Your task to perform on an android device: empty trash in google photos Image 0: 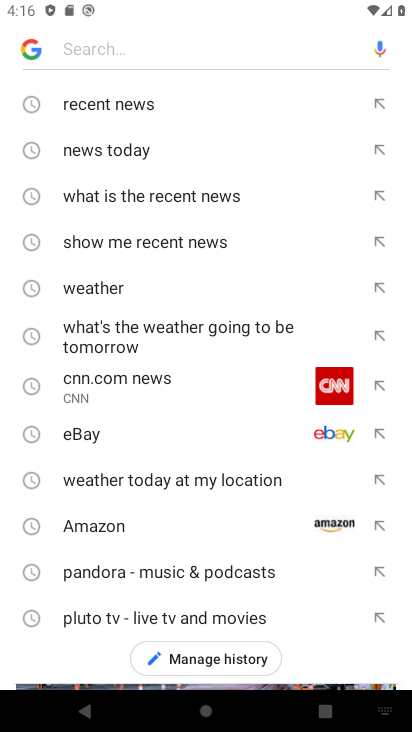
Step 0: press back button
Your task to perform on an android device: empty trash in google photos Image 1: 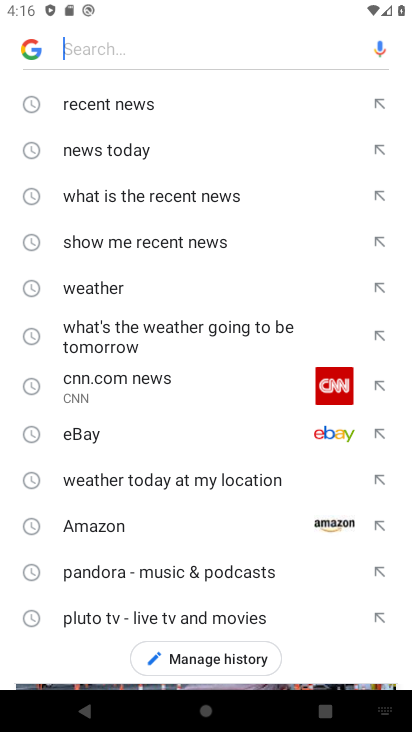
Step 1: press back button
Your task to perform on an android device: empty trash in google photos Image 2: 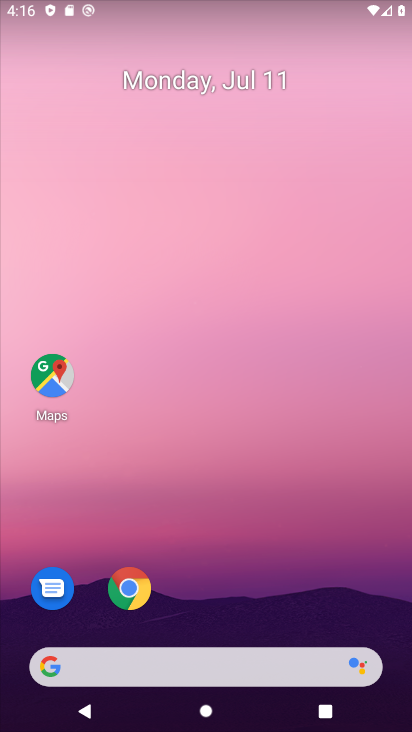
Step 2: drag from (281, 705) to (199, 175)
Your task to perform on an android device: empty trash in google photos Image 3: 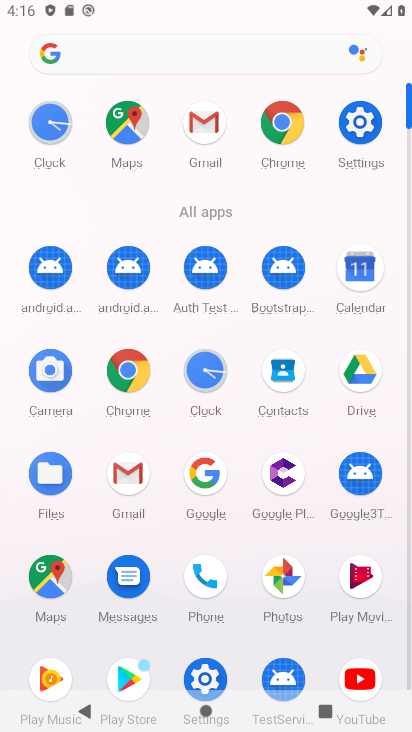
Step 3: click (282, 578)
Your task to perform on an android device: empty trash in google photos Image 4: 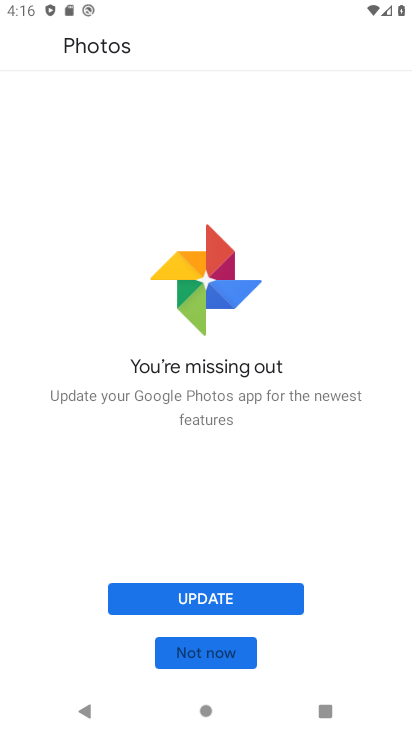
Step 4: click (216, 658)
Your task to perform on an android device: empty trash in google photos Image 5: 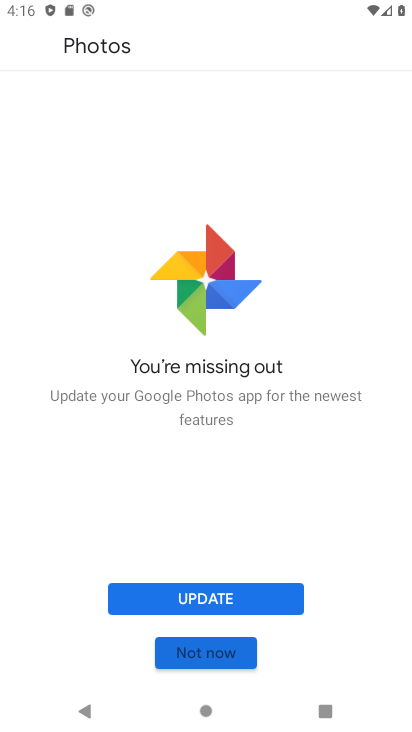
Step 5: click (216, 658)
Your task to perform on an android device: empty trash in google photos Image 6: 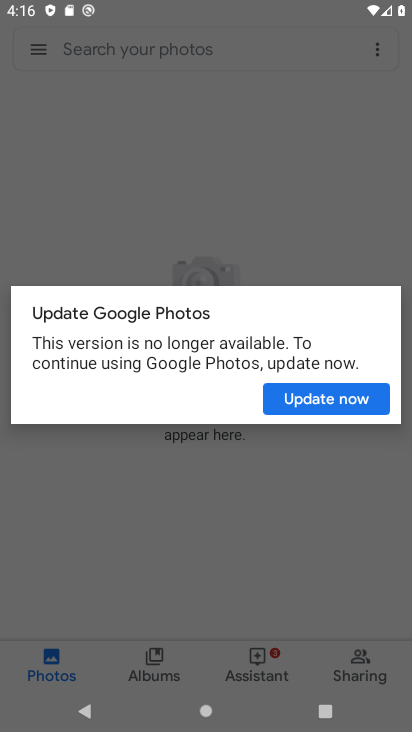
Step 6: click (269, 141)
Your task to perform on an android device: empty trash in google photos Image 7: 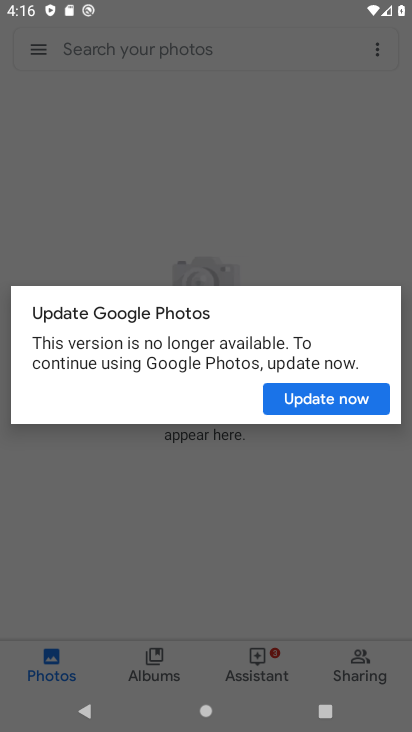
Step 7: press back button
Your task to perform on an android device: empty trash in google photos Image 8: 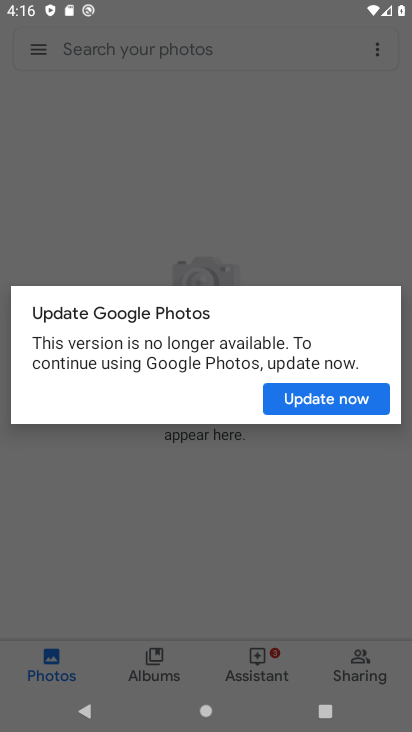
Step 8: click (285, 226)
Your task to perform on an android device: empty trash in google photos Image 9: 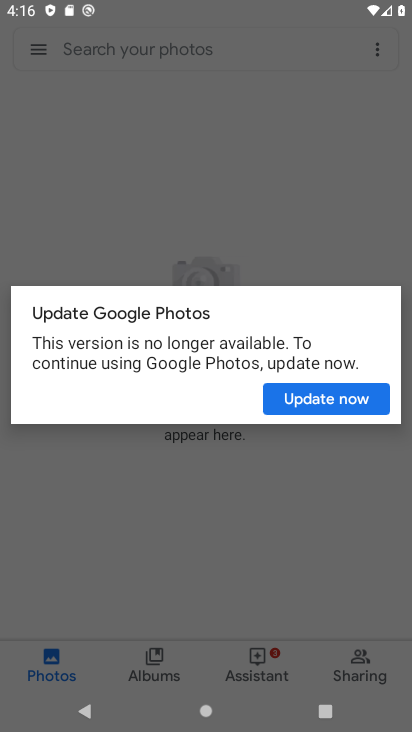
Step 9: click (285, 226)
Your task to perform on an android device: empty trash in google photos Image 10: 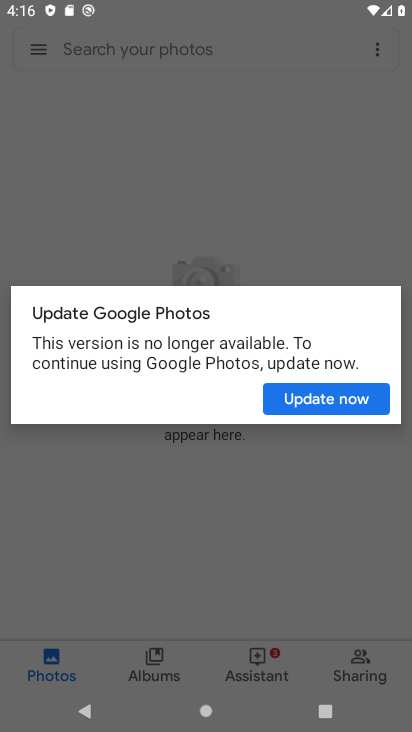
Step 10: press home button
Your task to perform on an android device: empty trash in google photos Image 11: 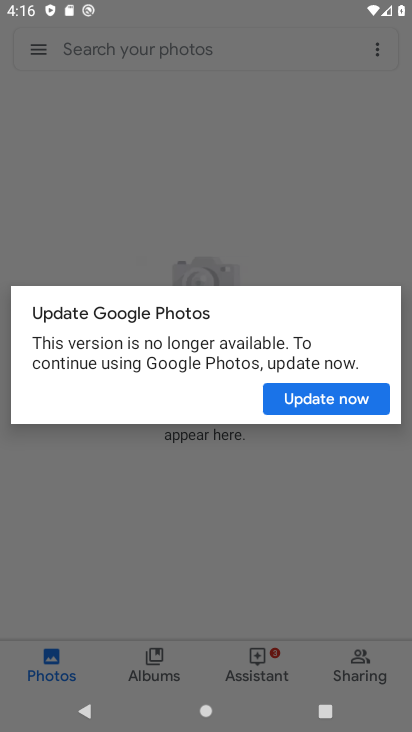
Step 11: press home button
Your task to perform on an android device: empty trash in google photos Image 12: 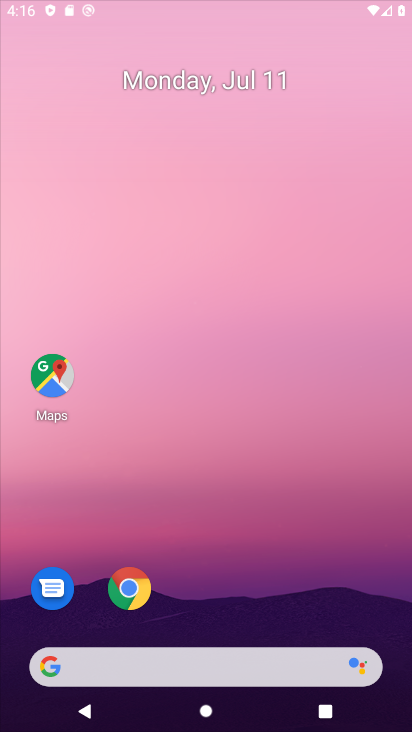
Step 12: press home button
Your task to perform on an android device: empty trash in google photos Image 13: 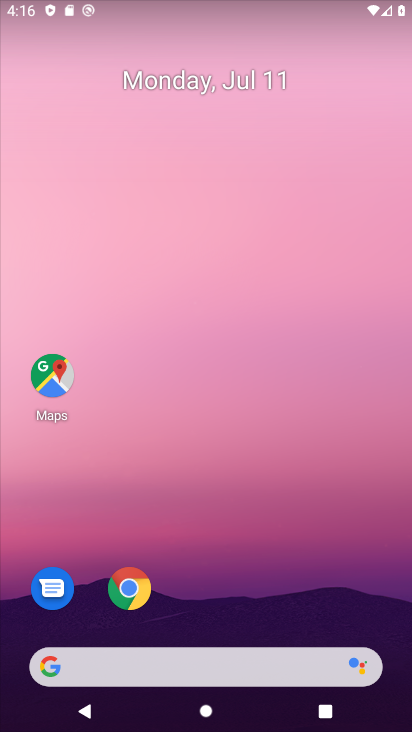
Step 13: drag from (242, 635) to (182, 6)
Your task to perform on an android device: empty trash in google photos Image 14: 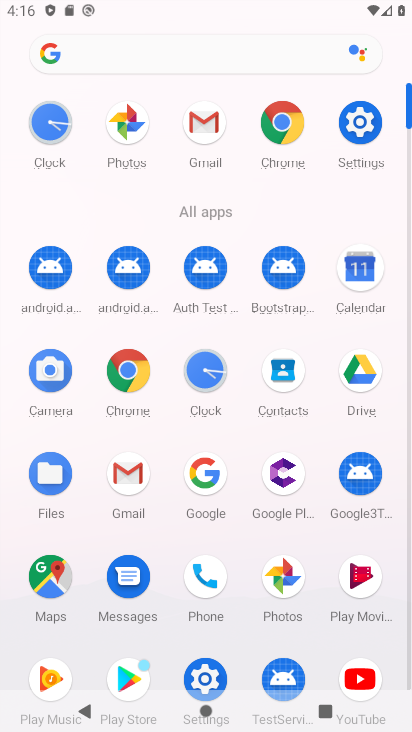
Step 14: click (288, 573)
Your task to perform on an android device: empty trash in google photos Image 15: 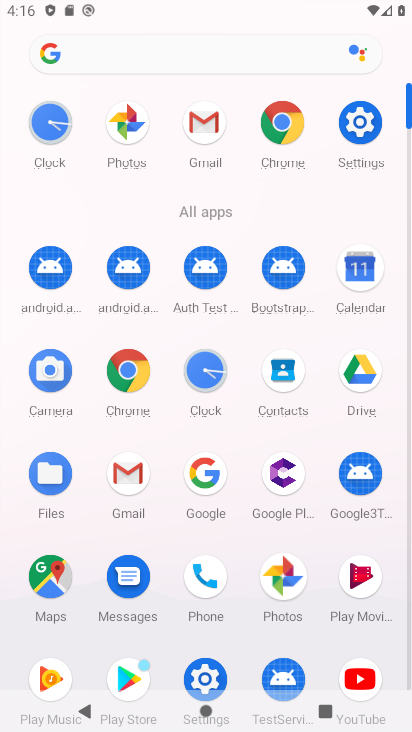
Step 15: click (289, 573)
Your task to perform on an android device: empty trash in google photos Image 16: 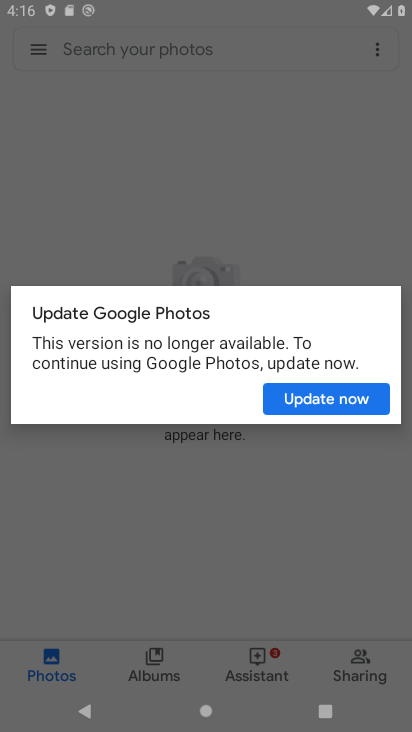
Step 16: click (290, 573)
Your task to perform on an android device: empty trash in google photos Image 17: 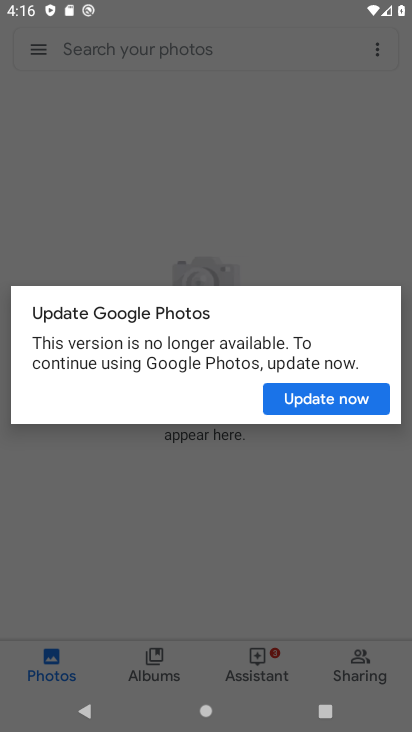
Step 17: click (349, 404)
Your task to perform on an android device: empty trash in google photos Image 18: 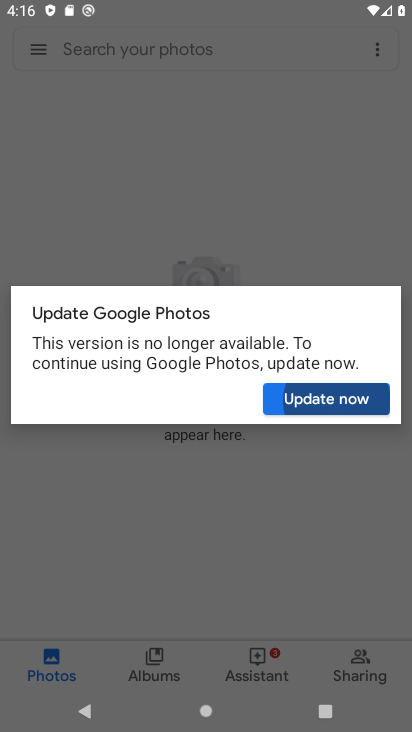
Step 18: click (349, 404)
Your task to perform on an android device: empty trash in google photos Image 19: 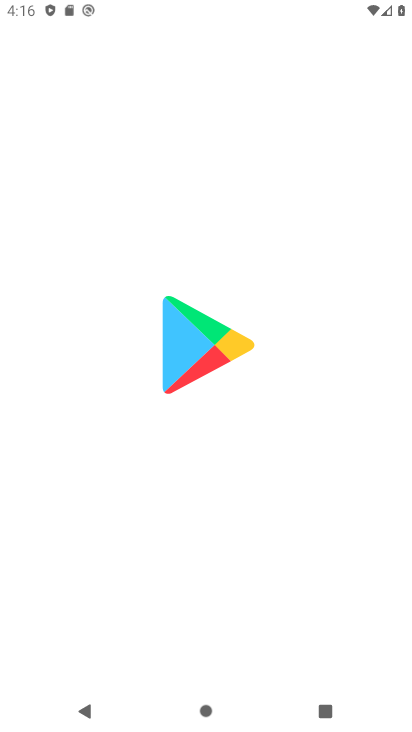
Step 19: click (37, 41)
Your task to perform on an android device: empty trash in google photos Image 20: 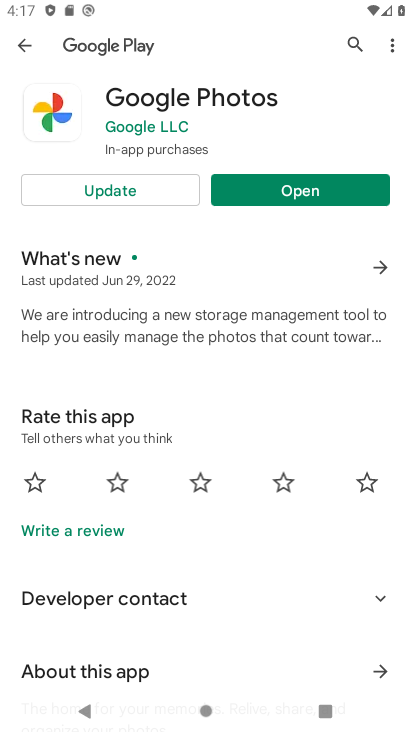
Step 20: press home button
Your task to perform on an android device: empty trash in google photos Image 21: 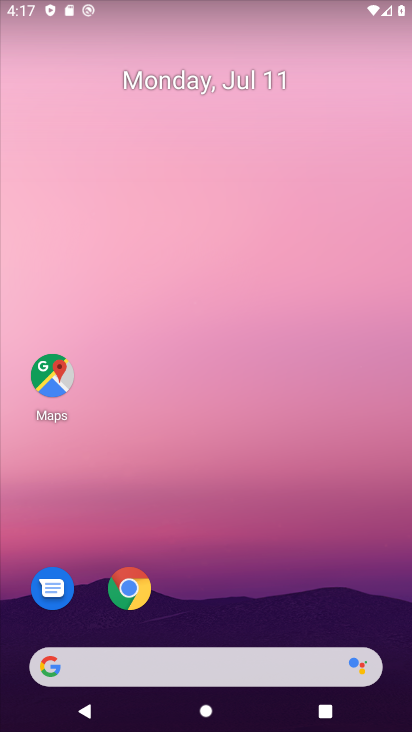
Step 21: drag from (240, 471) to (218, 289)
Your task to perform on an android device: empty trash in google photos Image 22: 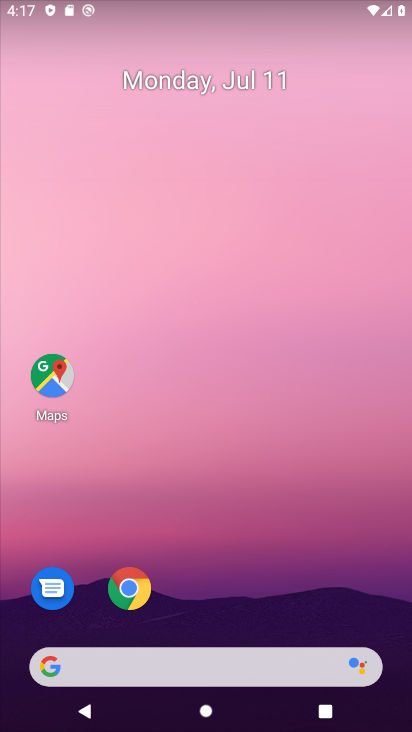
Step 22: click (179, 188)
Your task to perform on an android device: empty trash in google photos Image 23: 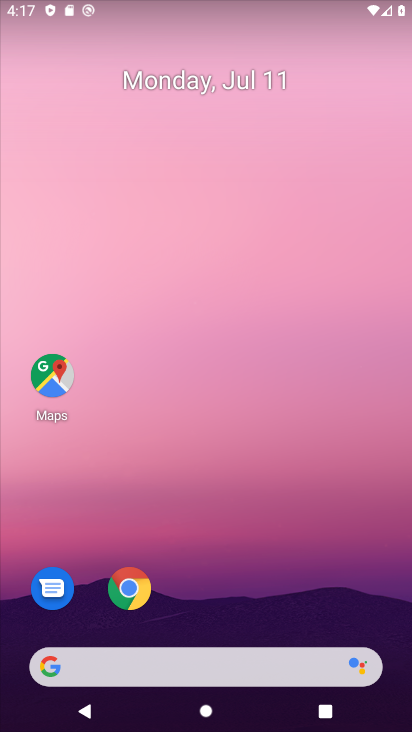
Step 23: drag from (217, 508) to (208, 209)
Your task to perform on an android device: empty trash in google photos Image 24: 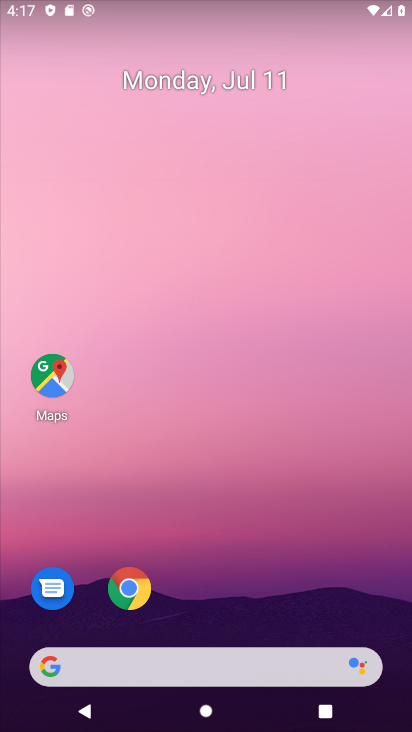
Step 24: drag from (281, 543) to (281, 160)
Your task to perform on an android device: empty trash in google photos Image 25: 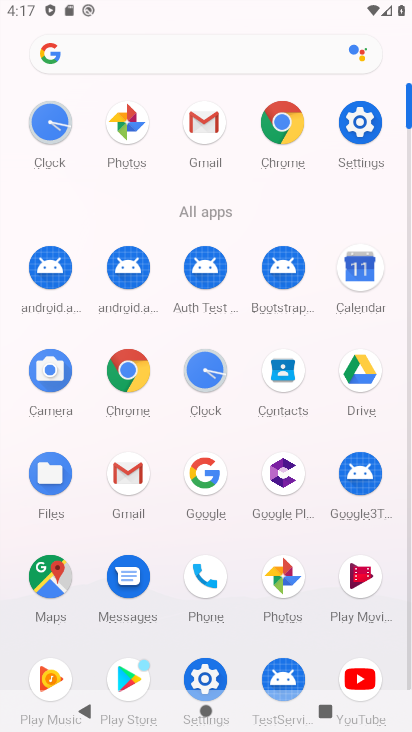
Step 25: click (288, 575)
Your task to perform on an android device: empty trash in google photos Image 26: 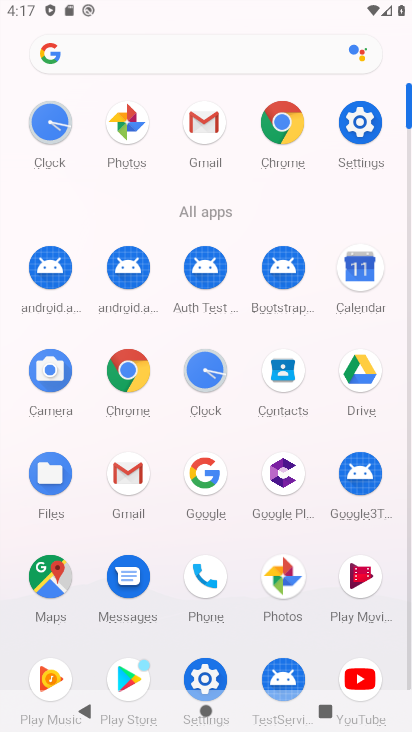
Step 26: click (286, 575)
Your task to perform on an android device: empty trash in google photos Image 27: 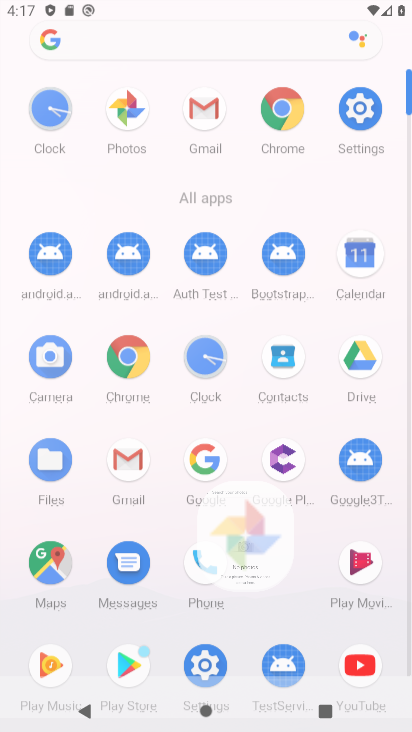
Step 27: click (286, 575)
Your task to perform on an android device: empty trash in google photos Image 28: 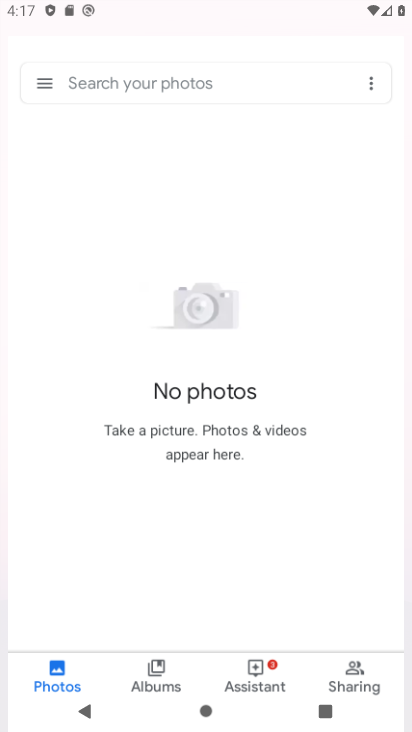
Step 28: click (293, 573)
Your task to perform on an android device: empty trash in google photos Image 29: 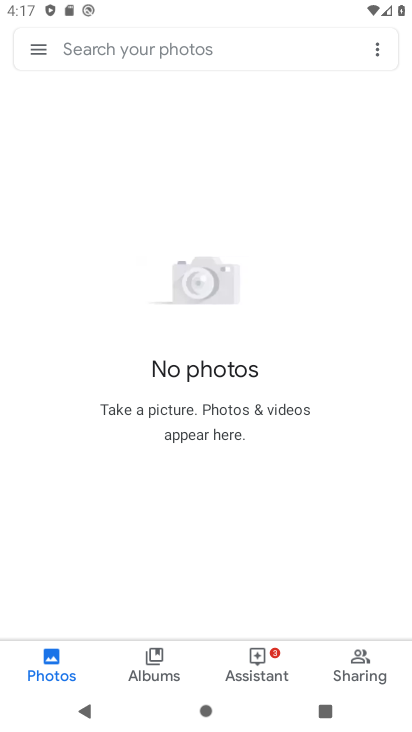
Step 29: click (293, 573)
Your task to perform on an android device: empty trash in google photos Image 30: 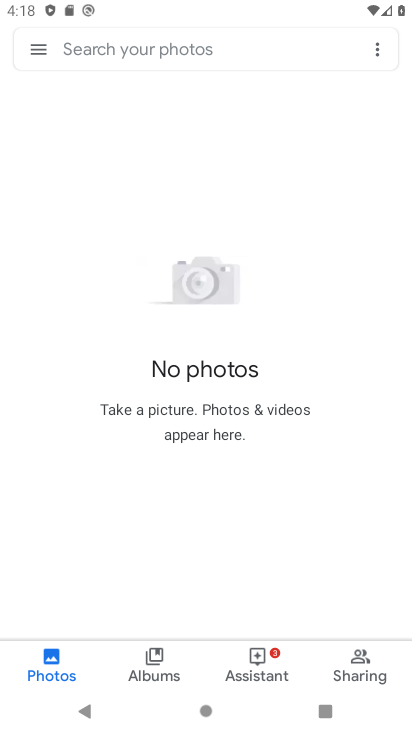
Step 30: task complete